Your task to perform on an android device: Open display settings Image 0: 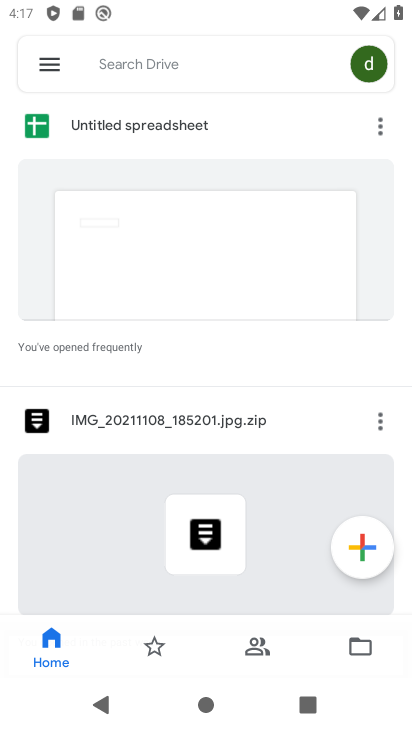
Step 0: press back button
Your task to perform on an android device: Open display settings Image 1: 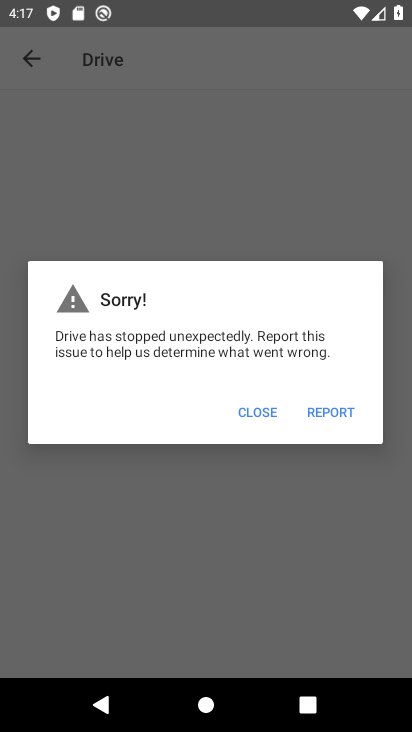
Step 1: press back button
Your task to perform on an android device: Open display settings Image 2: 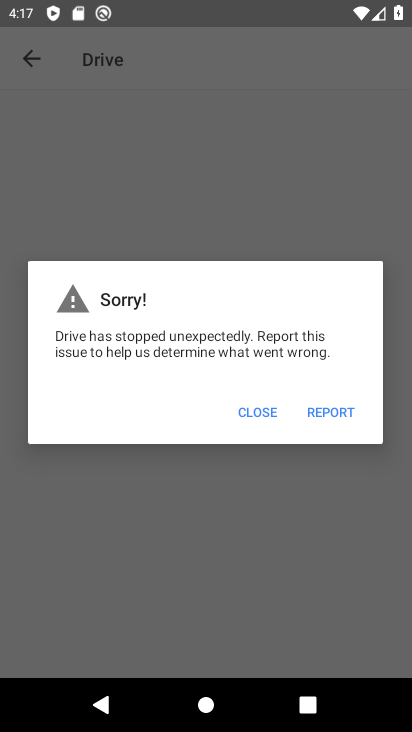
Step 2: press home button
Your task to perform on an android device: Open display settings Image 3: 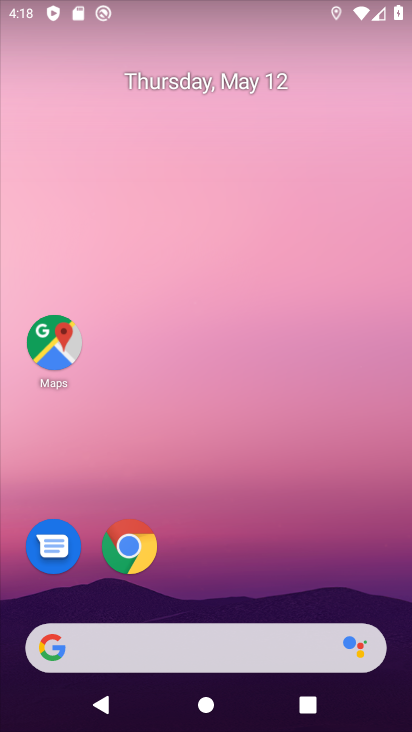
Step 3: drag from (249, 513) to (226, 30)
Your task to perform on an android device: Open display settings Image 4: 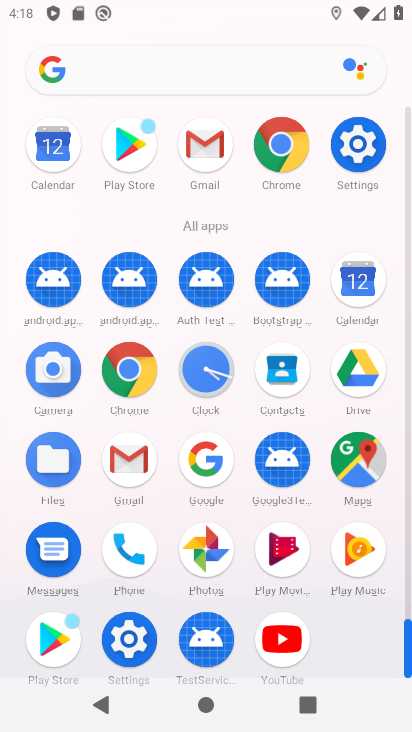
Step 4: click (129, 638)
Your task to perform on an android device: Open display settings Image 5: 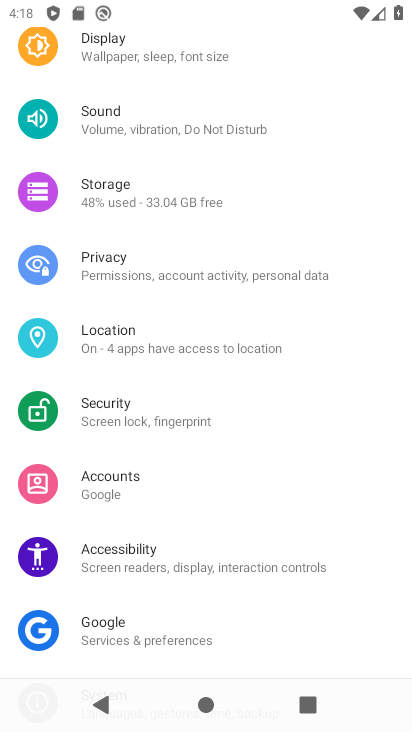
Step 5: click (150, 61)
Your task to perform on an android device: Open display settings Image 6: 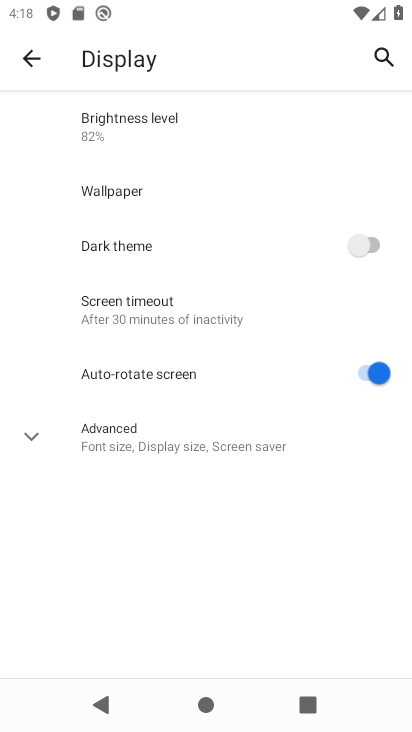
Step 6: click (29, 447)
Your task to perform on an android device: Open display settings Image 7: 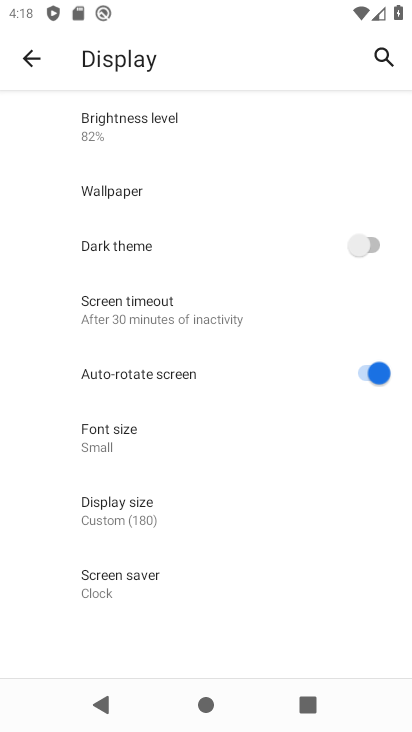
Step 7: task complete